Your task to perform on an android device: Open Maps and search for coffee Image 0: 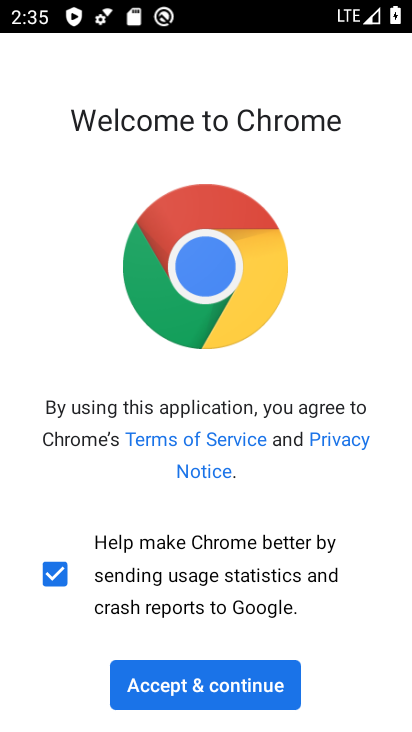
Step 0: click (188, 670)
Your task to perform on an android device: Open Maps and search for coffee Image 1: 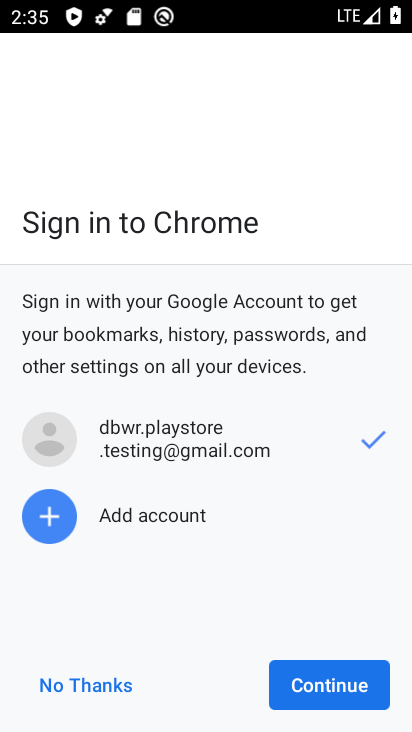
Step 1: click (362, 664)
Your task to perform on an android device: Open Maps and search for coffee Image 2: 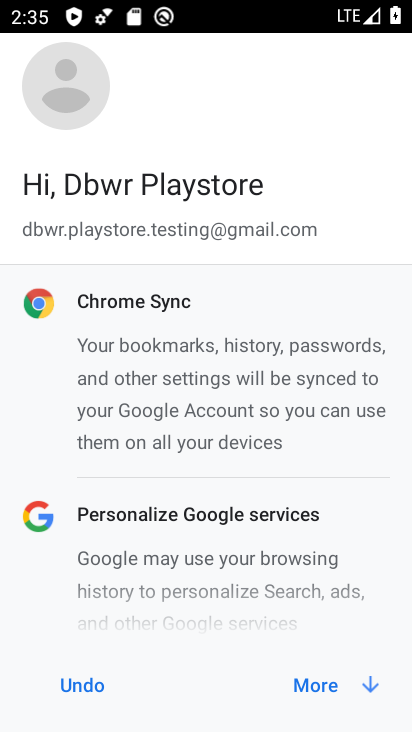
Step 2: press home button
Your task to perform on an android device: Open Maps and search for coffee Image 3: 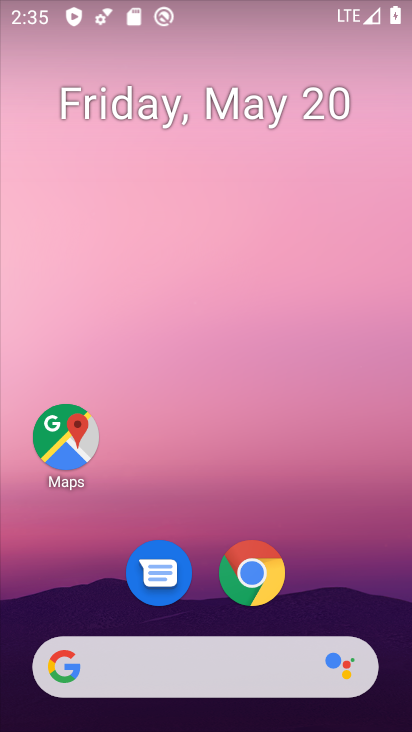
Step 3: click (81, 439)
Your task to perform on an android device: Open Maps and search for coffee Image 4: 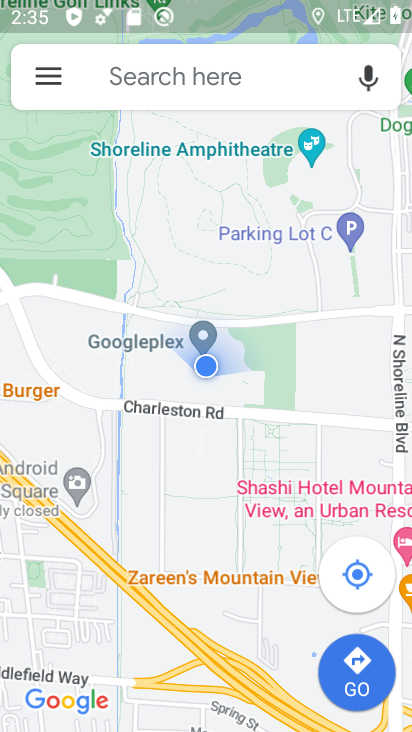
Step 4: click (208, 83)
Your task to perform on an android device: Open Maps and search for coffee Image 5: 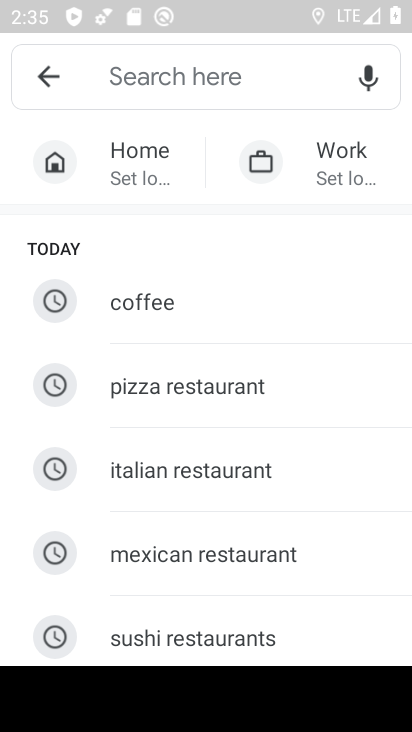
Step 5: click (237, 284)
Your task to perform on an android device: Open Maps and search for coffee Image 6: 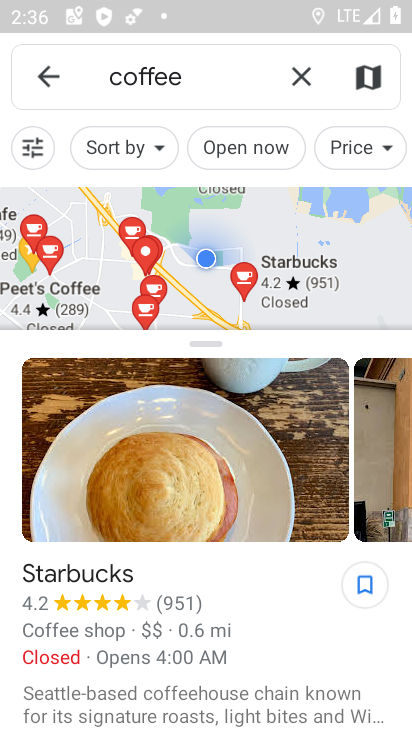
Step 6: task complete